Your task to perform on an android device: clear all cookies in the chrome app Image 0: 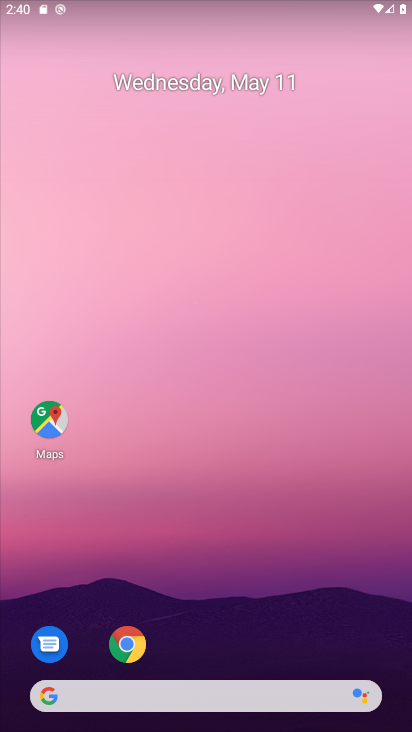
Step 0: drag from (211, 665) to (271, 23)
Your task to perform on an android device: clear all cookies in the chrome app Image 1: 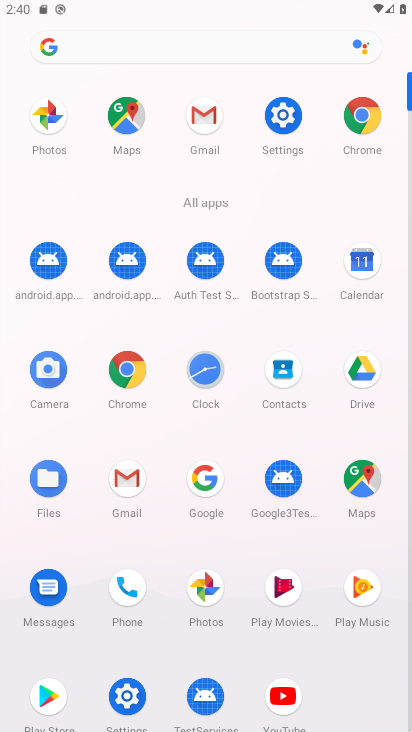
Step 1: click (138, 370)
Your task to perform on an android device: clear all cookies in the chrome app Image 2: 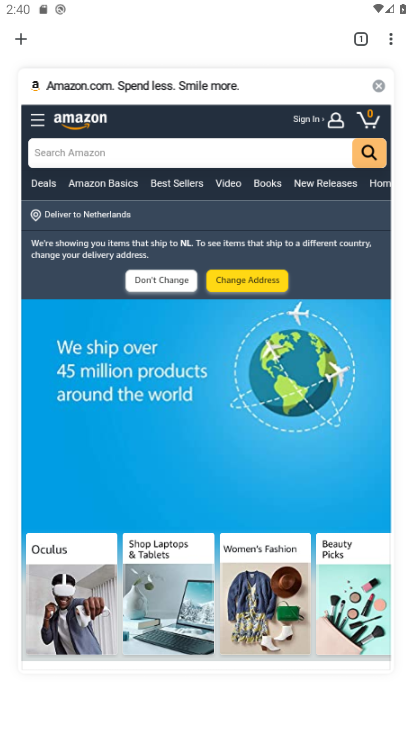
Step 2: click (392, 30)
Your task to perform on an android device: clear all cookies in the chrome app Image 3: 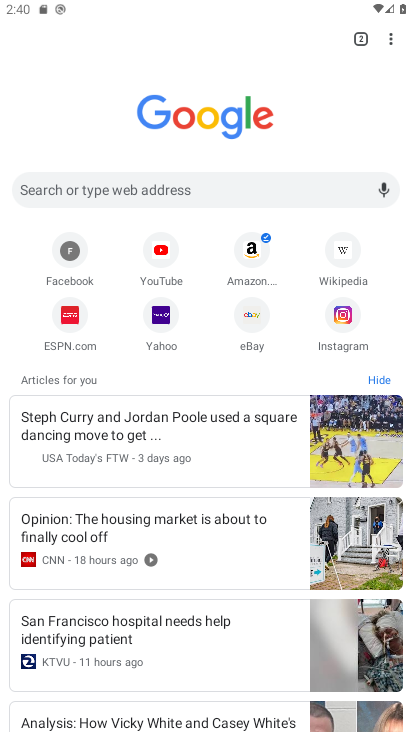
Step 3: drag from (391, 43) to (263, 323)
Your task to perform on an android device: clear all cookies in the chrome app Image 4: 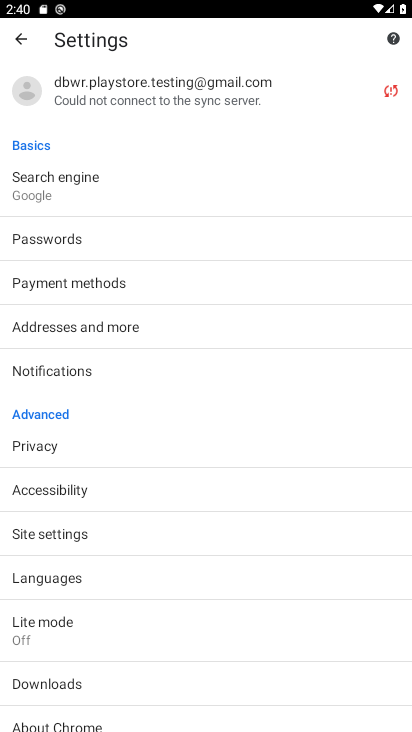
Step 4: click (50, 449)
Your task to perform on an android device: clear all cookies in the chrome app Image 5: 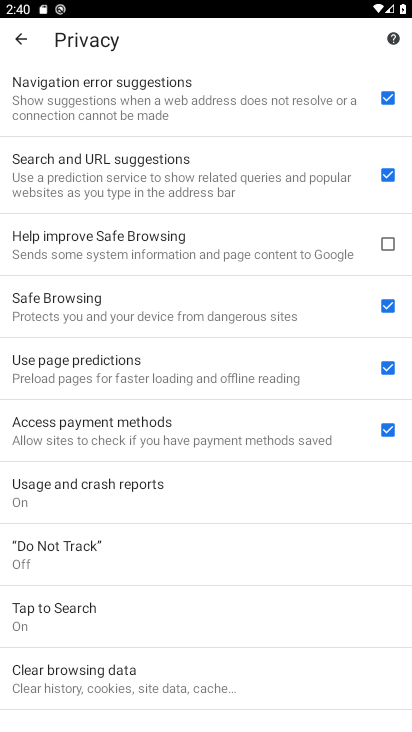
Step 5: drag from (104, 508) to (60, 22)
Your task to perform on an android device: clear all cookies in the chrome app Image 6: 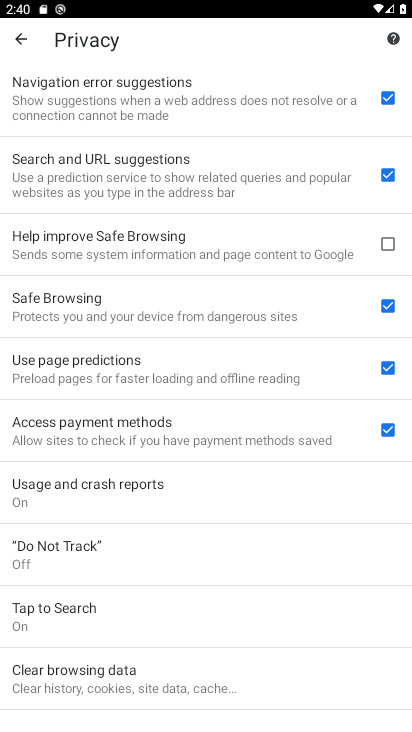
Step 6: click (93, 667)
Your task to perform on an android device: clear all cookies in the chrome app Image 7: 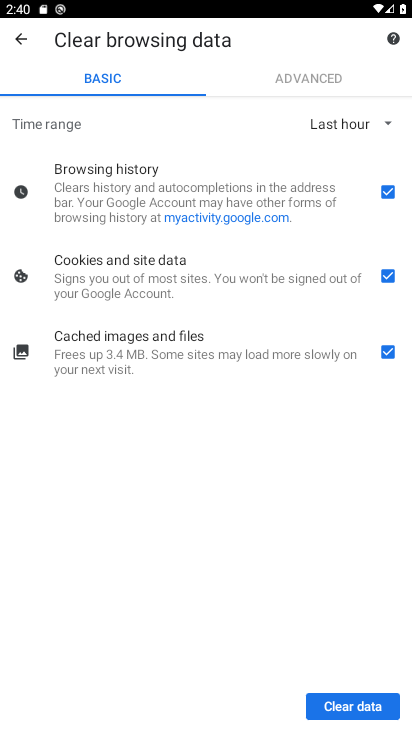
Step 7: click (359, 699)
Your task to perform on an android device: clear all cookies in the chrome app Image 8: 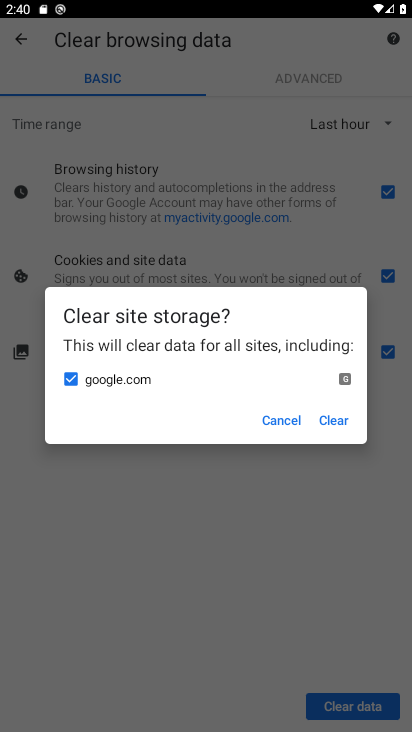
Step 8: click (319, 426)
Your task to perform on an android device: clear all cookies in the chrome app Image 9: 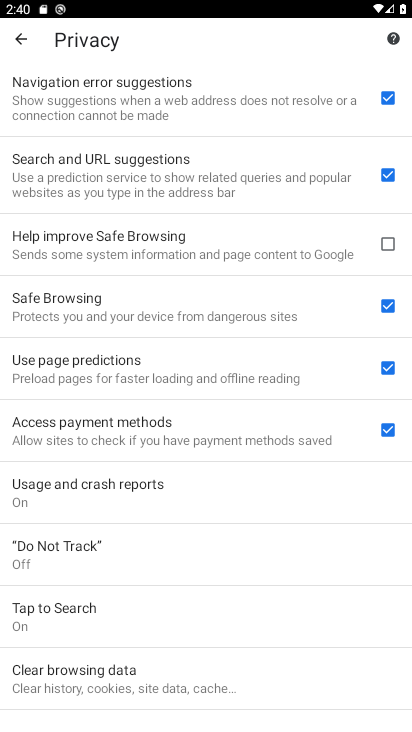
Step 9: task complete